Your task to perform on an android device: turn on showing notifications on the lock screen Image 0: 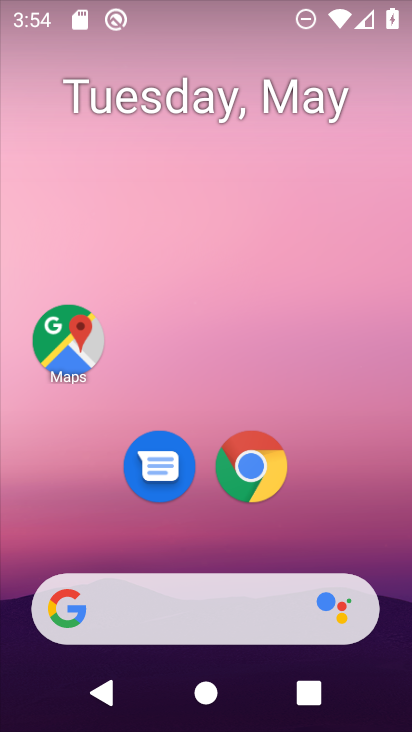
Step 0: drag from (333, 518) to (325, 12)
Your task to perform on an android device: turn on showing notifications on the lock screen Image 1: 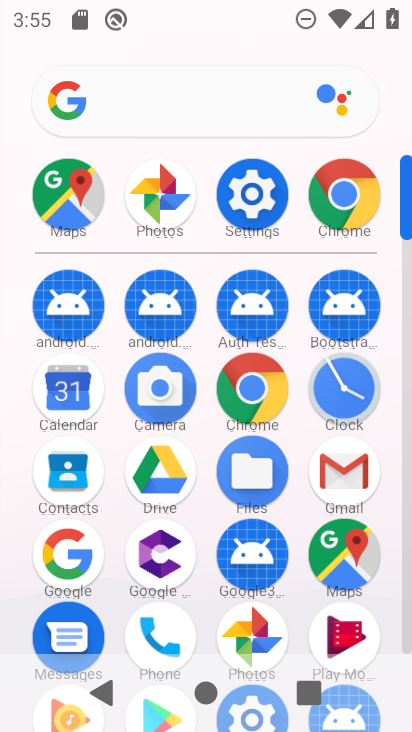
Step 1: click (256, 232)
Your task to perform on an android device: turn on showing notifications on the lock screen Image 2: 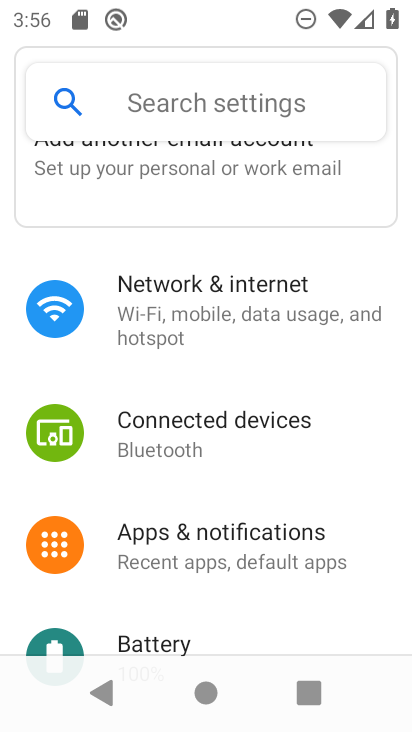
Step 2: click (263, 541)
Your task to perform on an android device: turn on showing notifications on the lock screen Image 3: 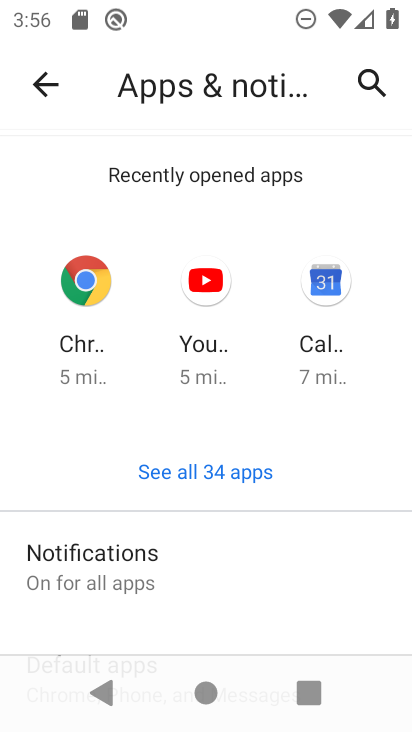
Step 3: click (176, 563)
Your task to perform on an android device: turn on showing notifications on the lock screen Image 4: 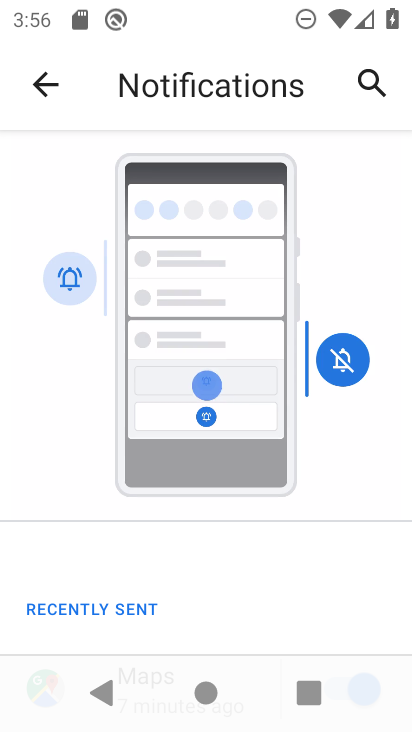
Step 4: drag from (174, 563) to (168, 188)
Your task to perform on an android device: turn on showing notifications on the lock screen Image 5: 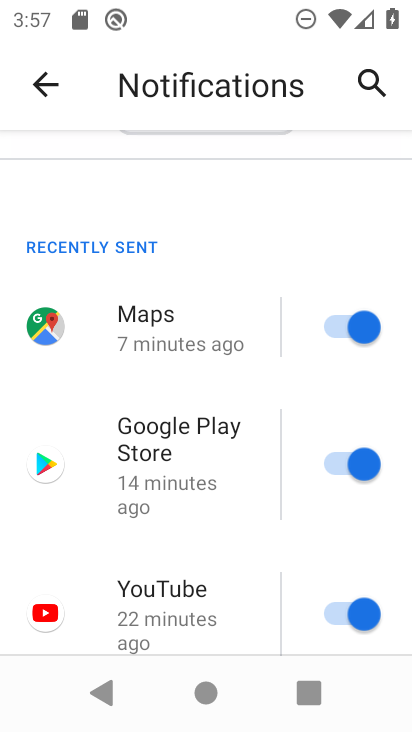
Step 5: drag from (130, 520) to (239, 108)
Your task to perform on an android device: turn on showing notifications on the lock screen Image 6: 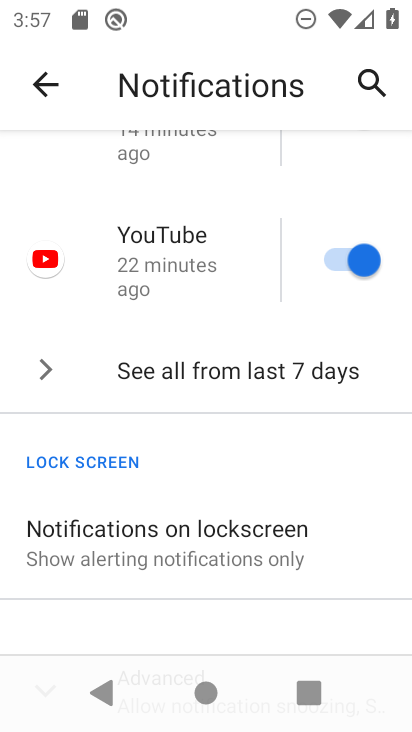
Step 6: click (187, 566)
Your task to perform on an android device: turn on showing notifications on the lock screen Image 7: 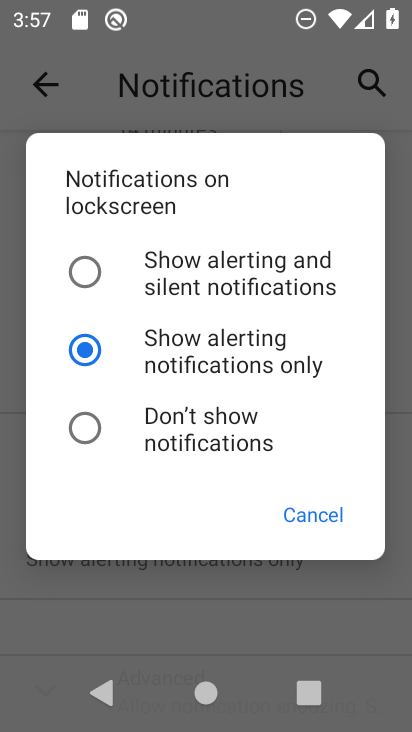
Step 7: click (188, 367)
Your task to perform on an android device: turn on showing notifications on the lock screen Image 8: 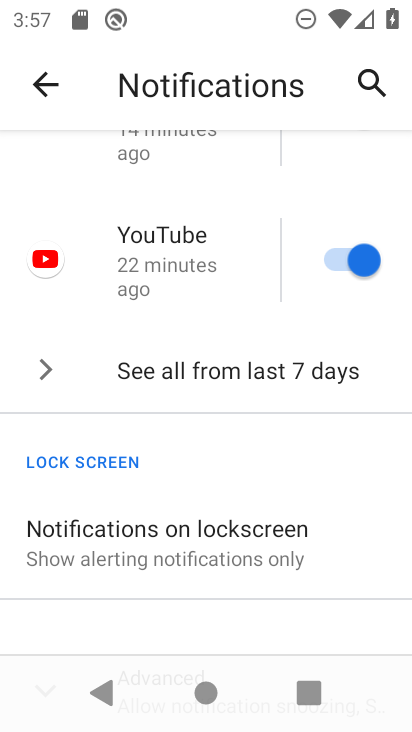
Step 8: click (184, 287)
Your task to perform on an android device: turn on showing notifications on the lock screen Image 9: 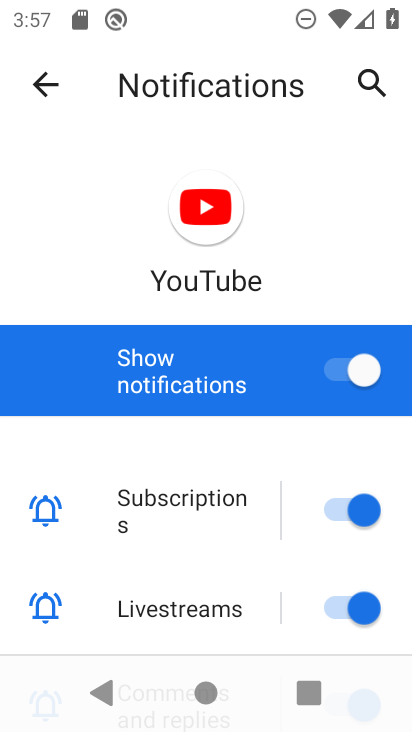
Step 9: task complete